Your task to perform on an android device: change the clock display to analog Image 0: 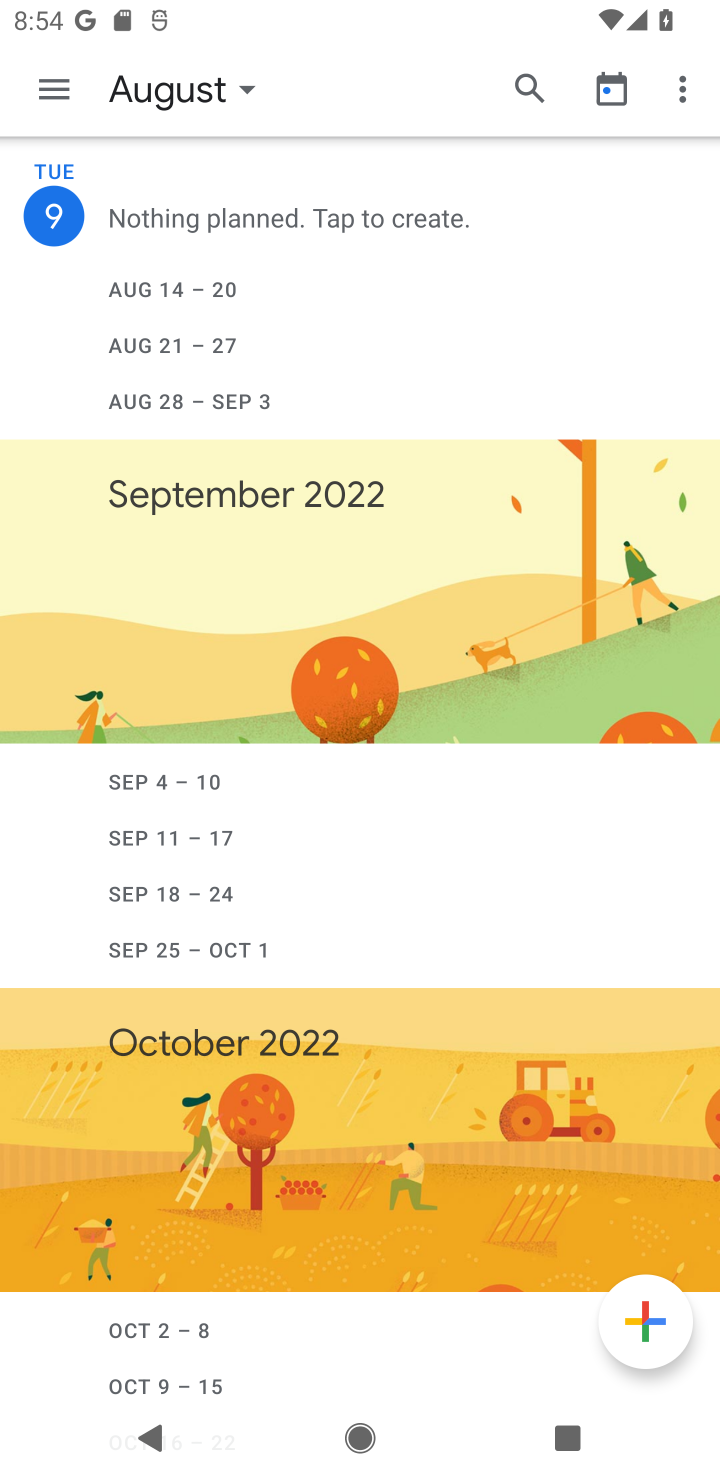
Step 0: press home button
Your task to perform on an android device: change the clock display to analog Image 1: 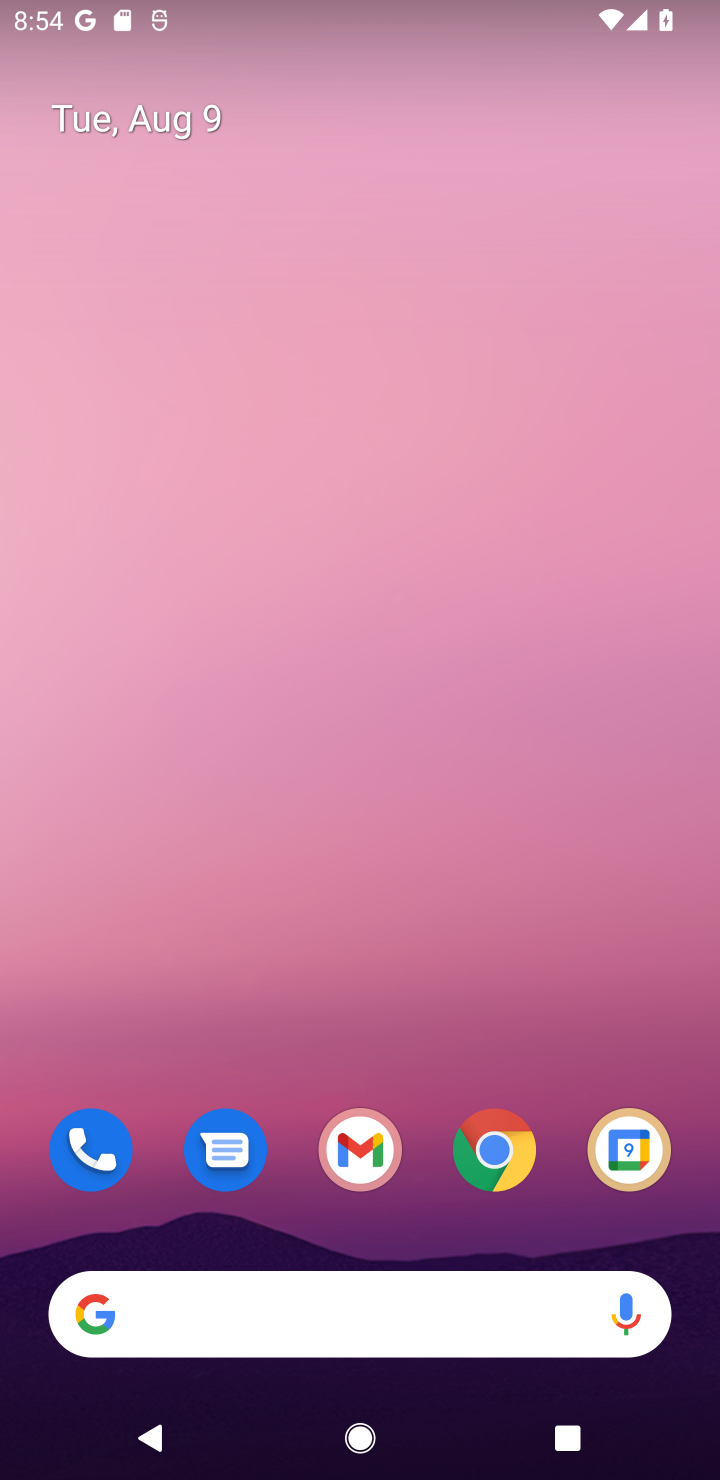
Step 1: drag from (342, 1260) to (432, 672)
Your task to perform on an android device: change the clock display to analog Image 2: 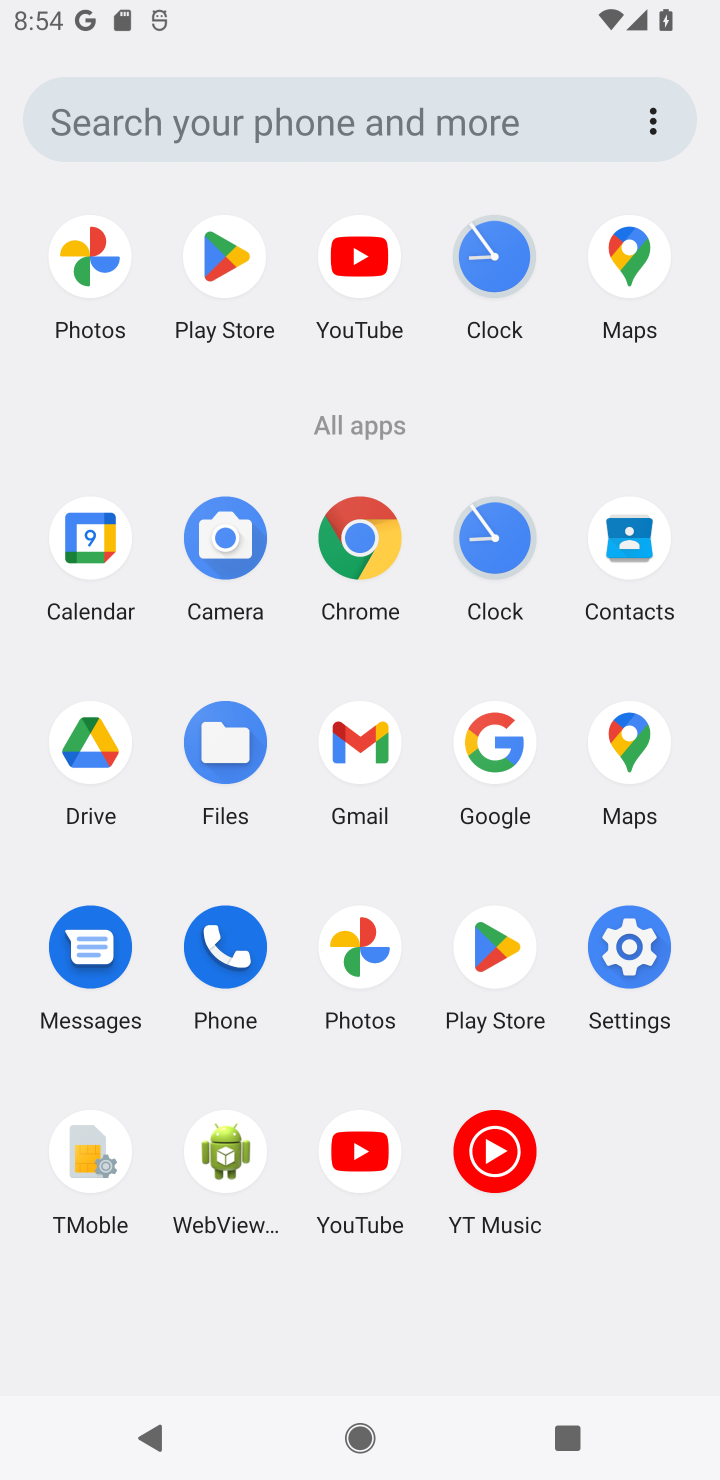
Step 2: click (501, 564)
Your task to perform on an android device: change the clock display to analog Image 3: 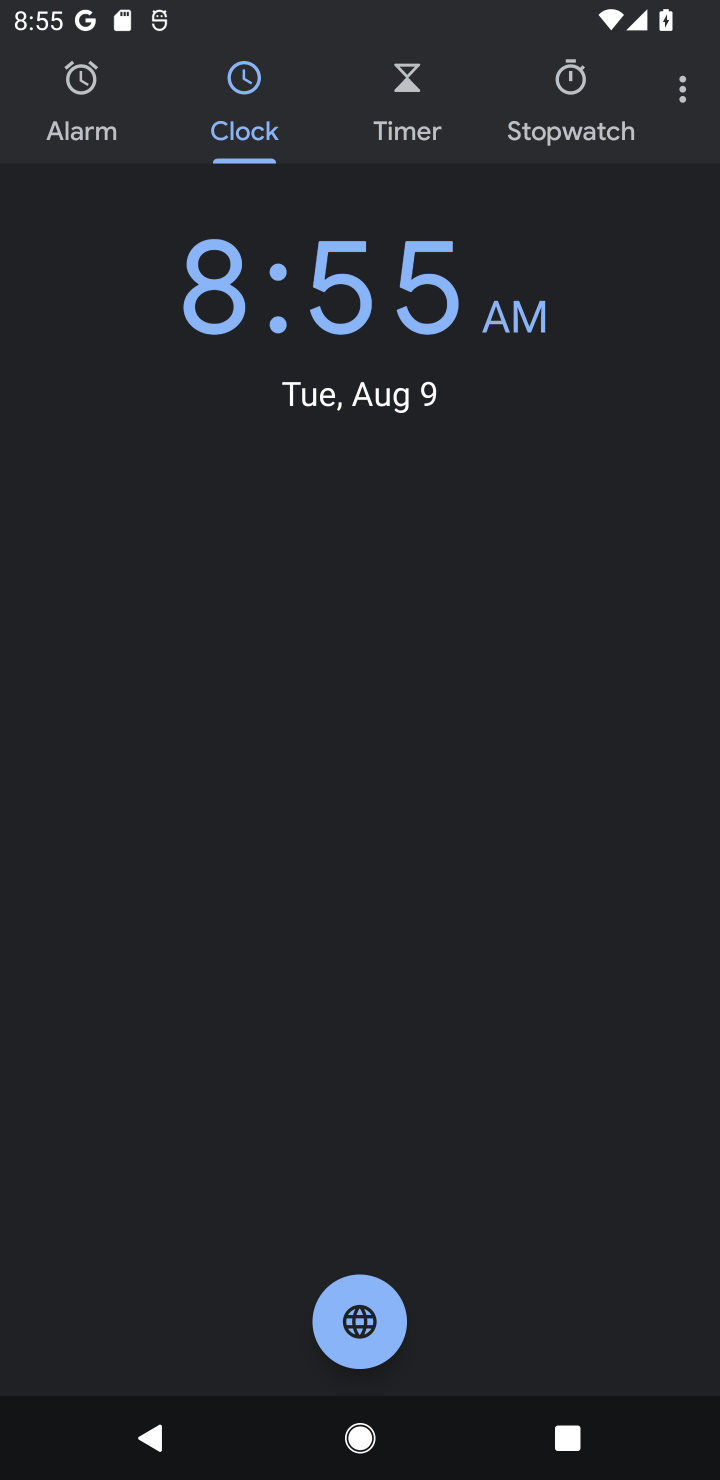
Step 3: click (670, 95)
Your task to perform on an android device: change the clock display to analog Image 4: 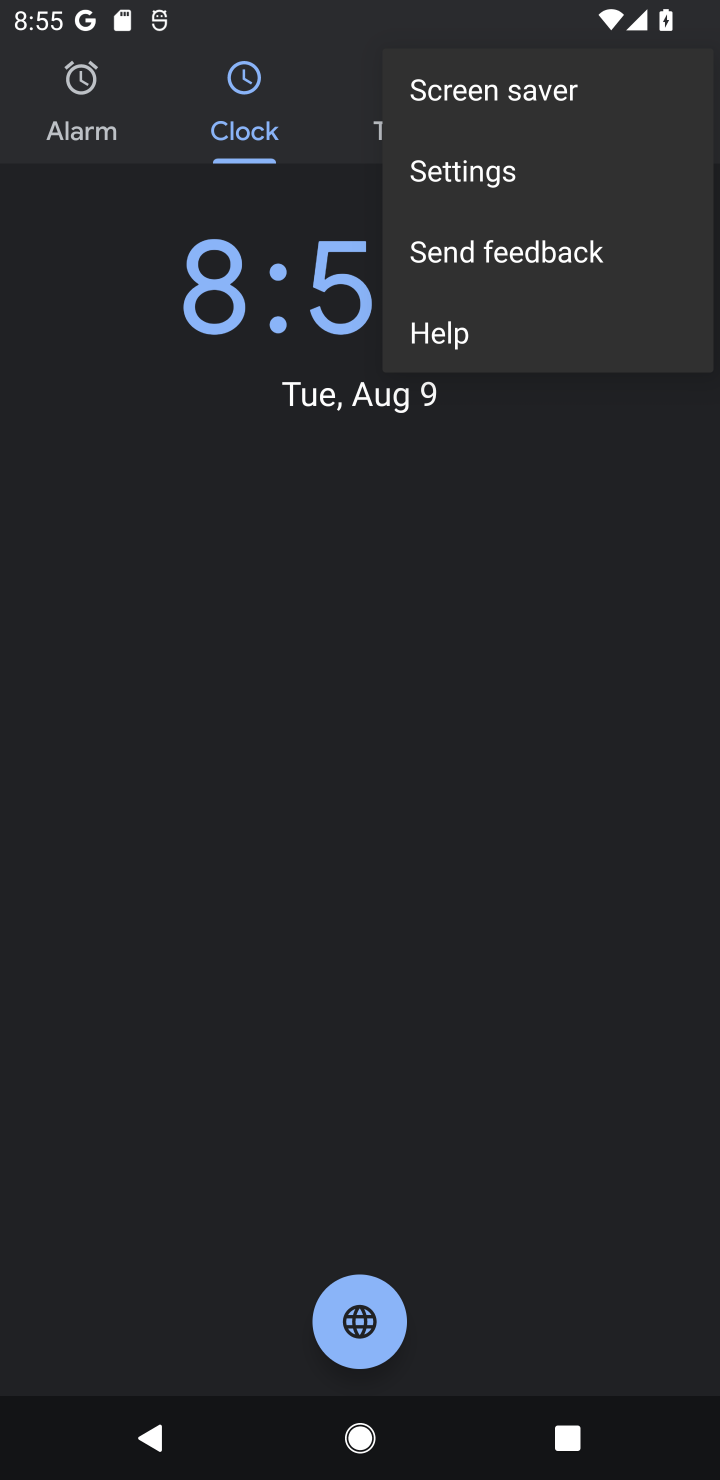
Step 4: click (501, 189)
Your task to perform on an android device: change the clock display to analog Image 5: 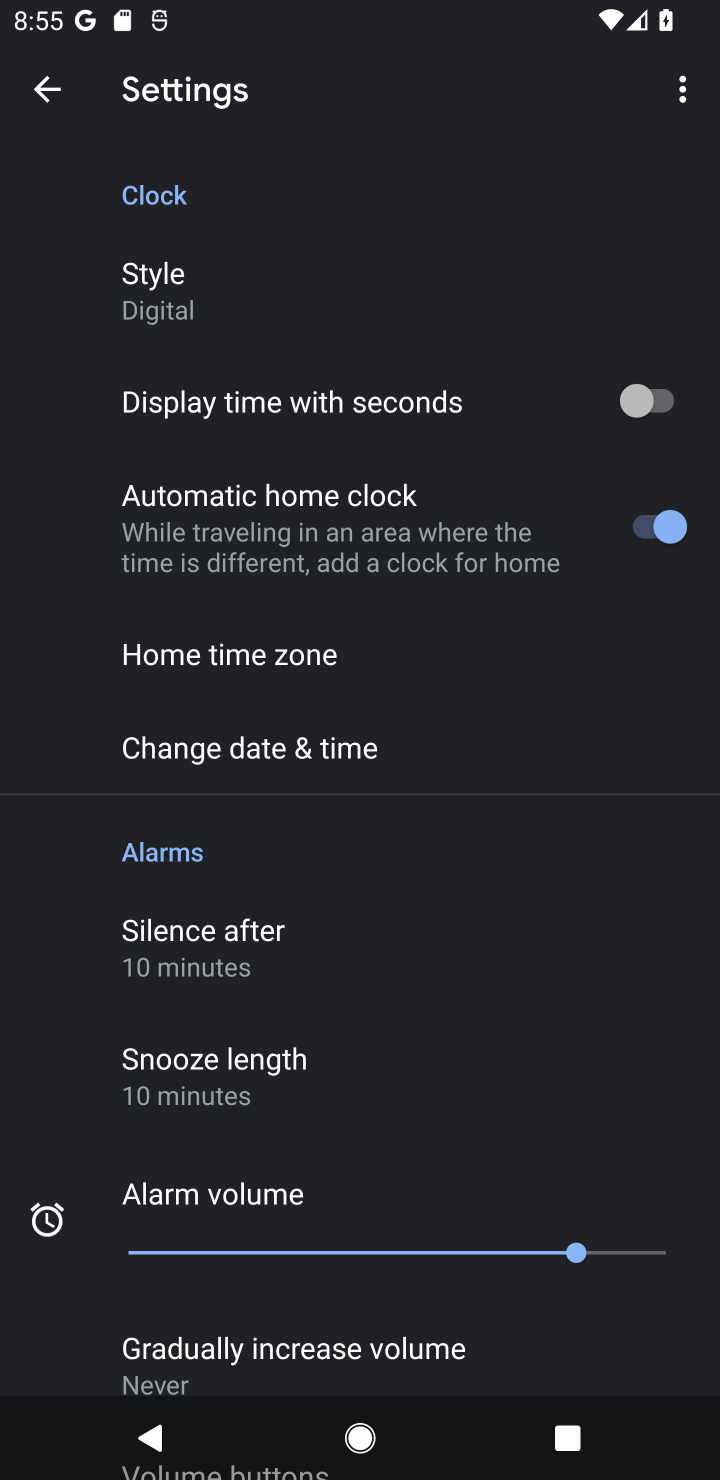
Step 5: click (203, 309)
Your task to perform on an android device: change the clock display to analog Image 6: 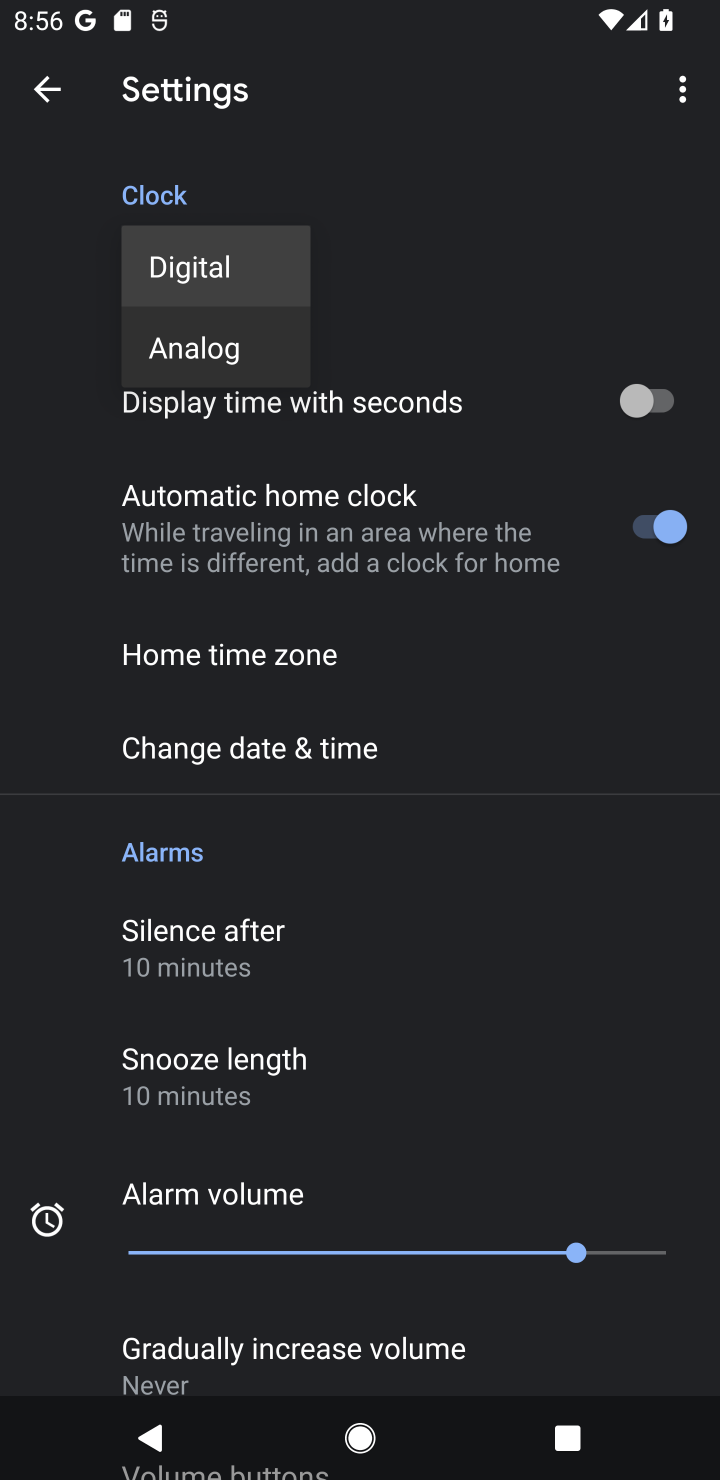
Step 6: click (255, 354)
Your task to perform on an android device: change the clock display to analog Image 7: 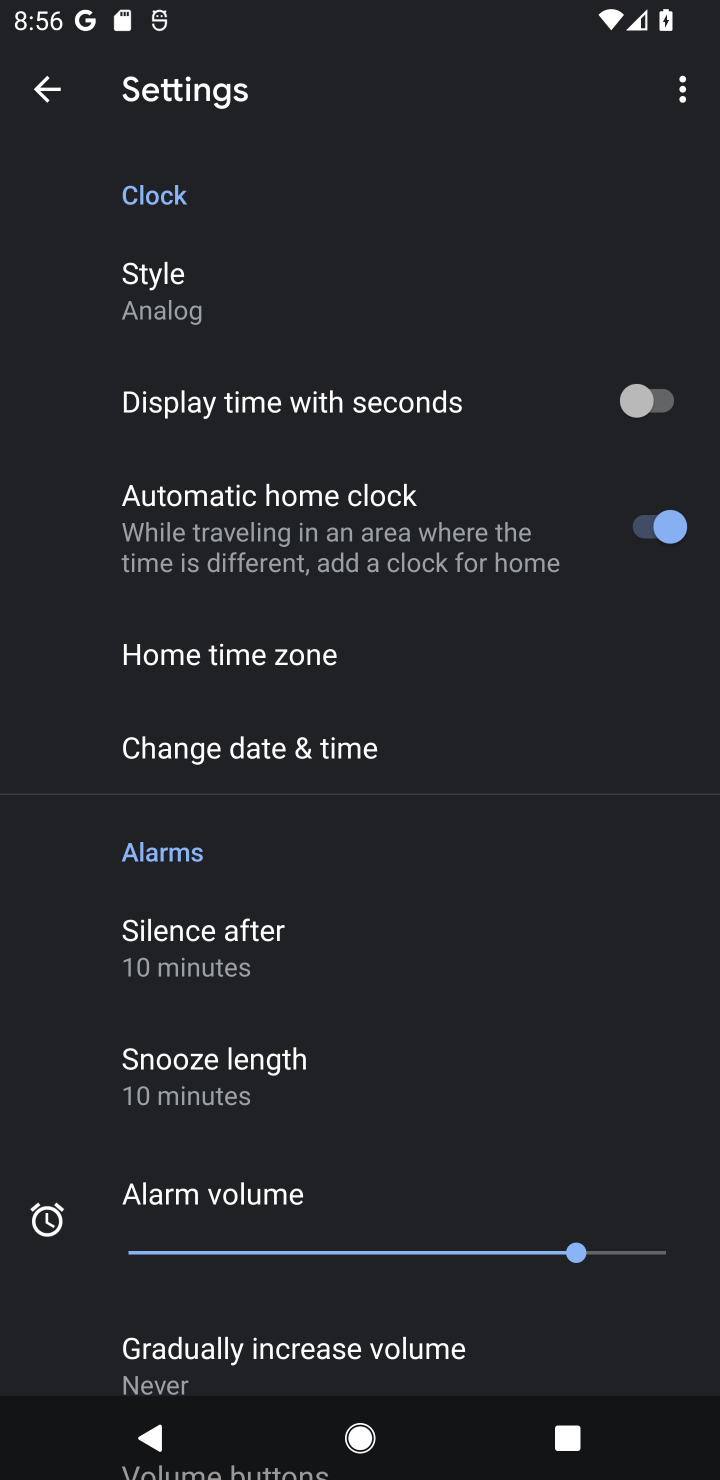
Step 7: task complete